Your task to perform on an android device: Do I have any events tomorrow? Image 0: 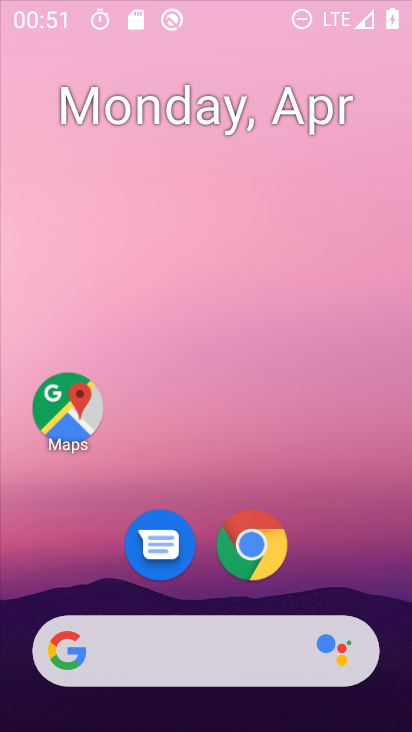
Step 0: drag from (326, 568) to (338, 234)
Your task to perform on an android device: Do I have any events tomorrow? Image 1: 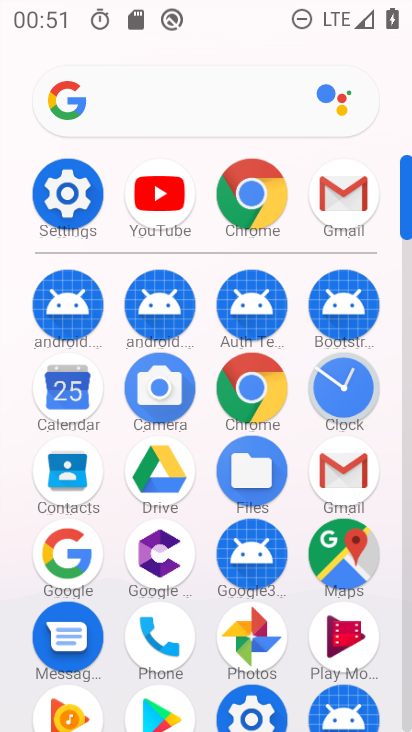
Step 1: drag from (282, 633) to (325, 297)
Your task to perform on an android device: Do I have any events tomorrow? Image 2: 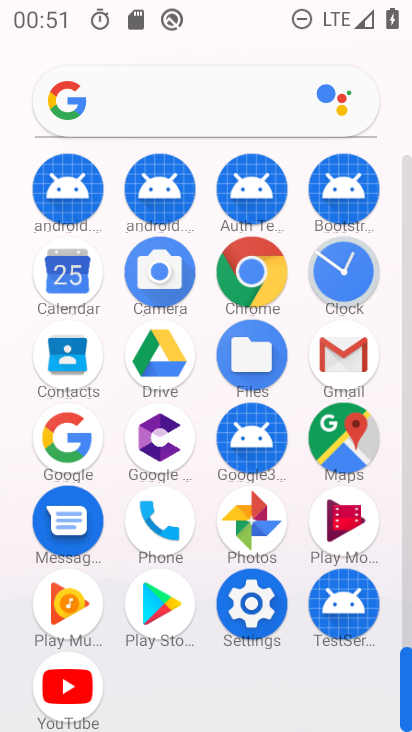
Step 2: click (66, 261)
Your task to perform on an android device: Do I have any events tomorrow? Image 3: 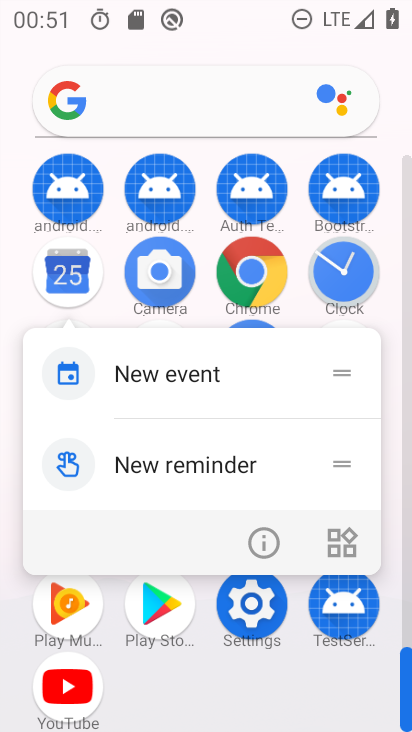
Step 3: press back button
Your task to perform on an android device: Do I have any events tomorrow? Image 4: 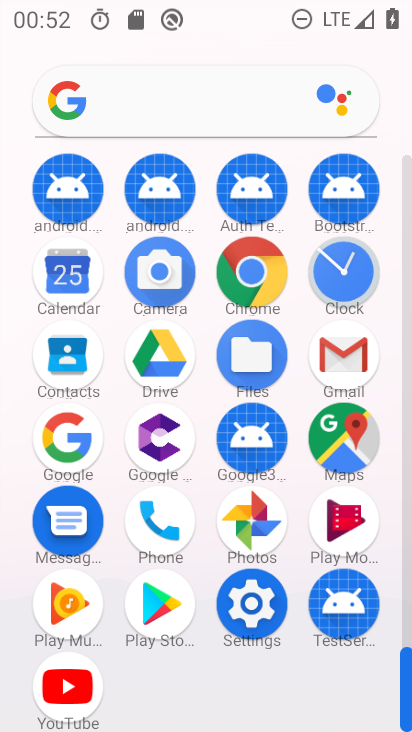
Step 4: click (60, 266)
Your task to perform on an android device: Do I have any events tomorrow? Image 5: 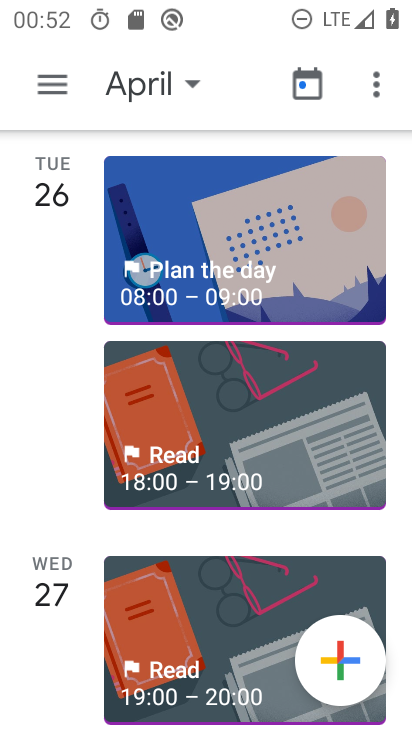
Step 5: click (55, 88)
Your task to perform on an android device: Do I have any events tomorrow? Image 6: 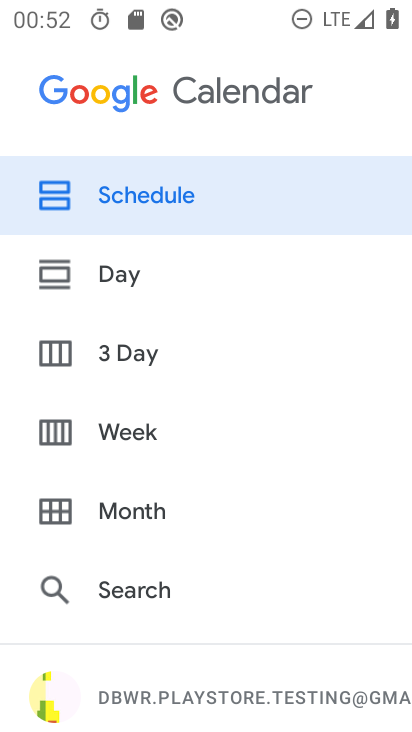
Step 6: click (162, 491)
Your task to perform on an android device: Do I have any events tomorrow? Image 7: 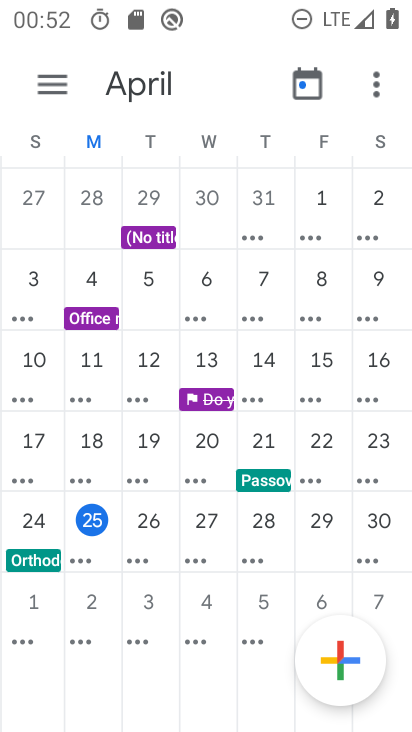
Step 7: click (155, 518)
Your task to perform on an android device: Do I have any events tomorrow? Image 8: 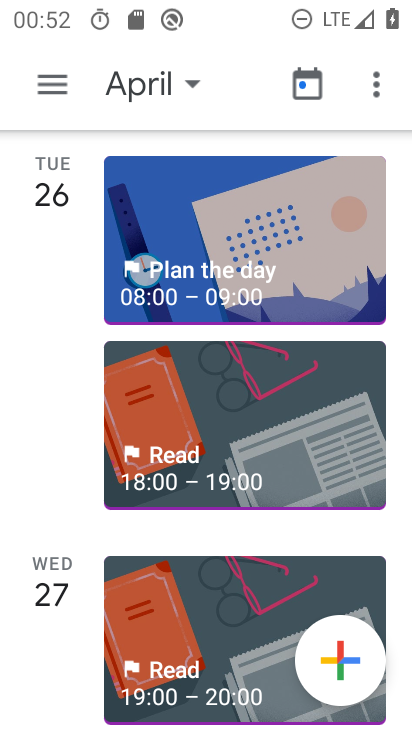
Step 8: task complete